Your task to perform on an android device: How do I get to the nearest Apple Store? Image 0: 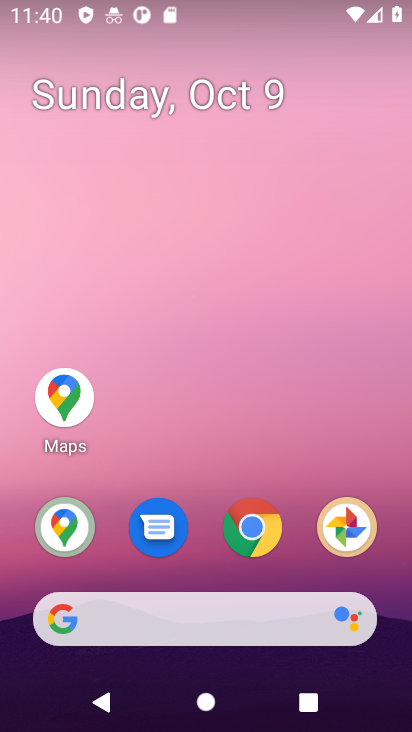
Step 0: click (75, 402)
Your task to perform on an android device: How do I get to the nearest Apple Store? Image 1: 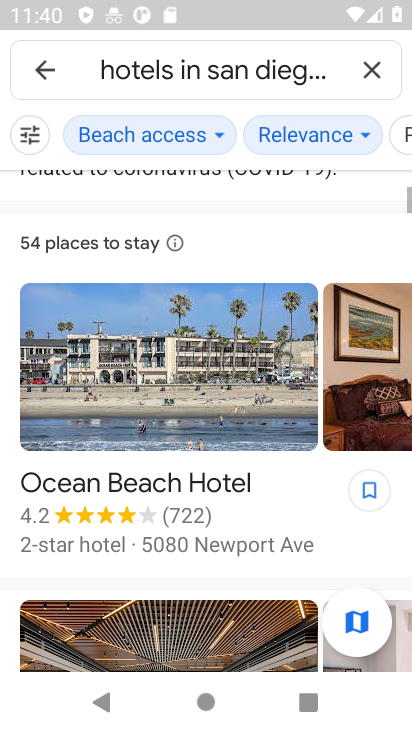
Step 1: click (167, 105)
Your task to perform on an android device: How do I get to the nearest Apple Store? Image 2: 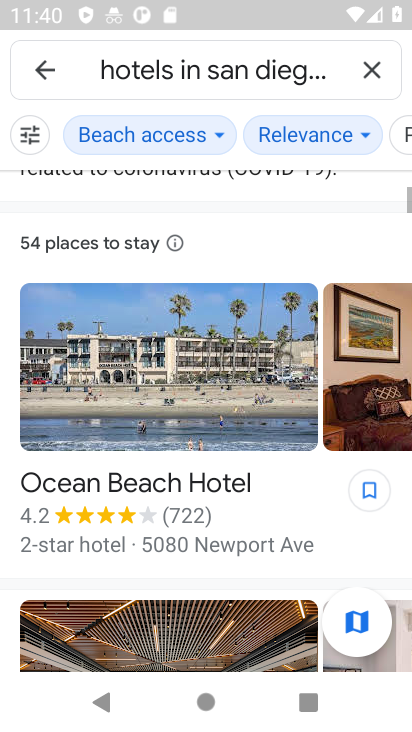
Step 2: click (173, 89)
Your task to perform on an android device: How do I get to the nearest Apple Store? Image 3: 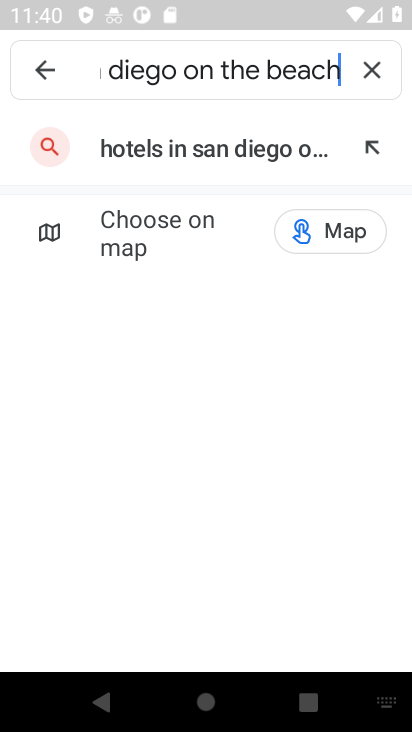
Step 3: click (379, 67)
Your task to perform on an android device: How do I get to the nearest Apple Store? Image 4: 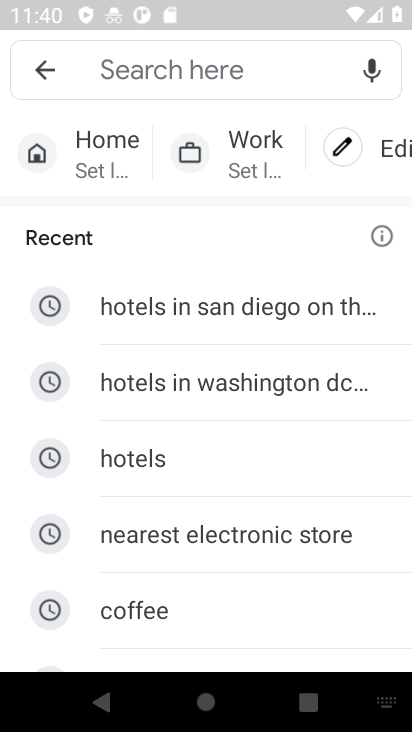
Step 4: type "the nearest Apple Store?"
Your task to perform on an android device: How do I get to the nearest Apple Store? Image 5: 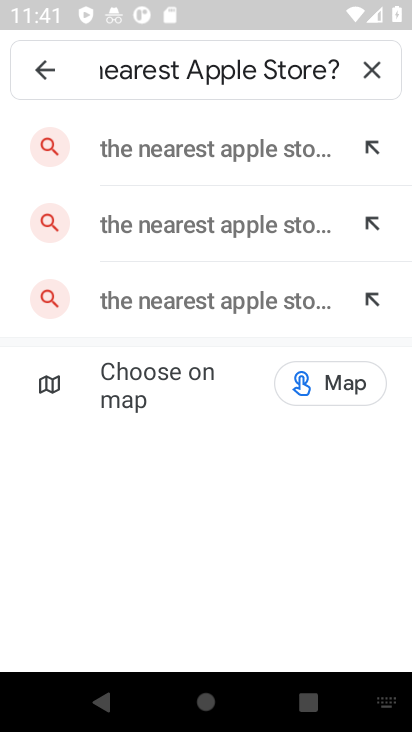
Step 5: click (152, 132)
Your task to perform on an android device: How do I get to the nearest Apple Store? Image 6: 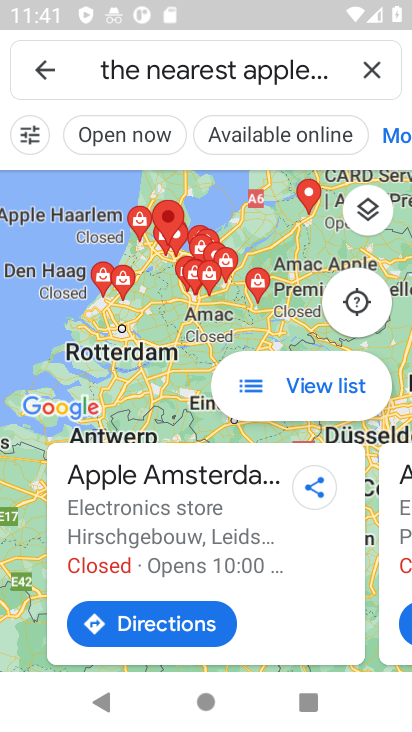
Step 6: task complete